Your task to perform on an android device: open a new tab in the chrome app Image 0: 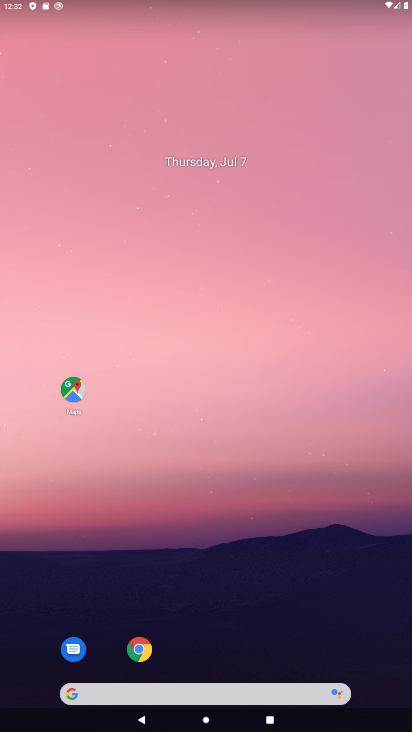
Step 0: drag from (207, 661) to (164, 82)
Your task to perform on an android device: open a new tab in the chrome app Image 1: 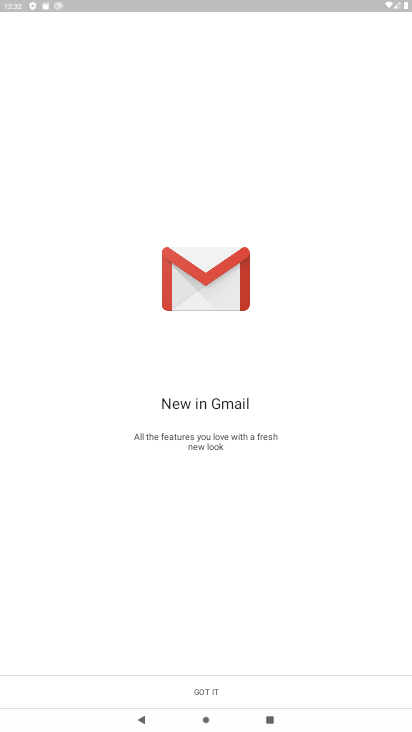
Step 1: press home button
Your task to perform on an android device: open a new tab in the chrome app Image 2: 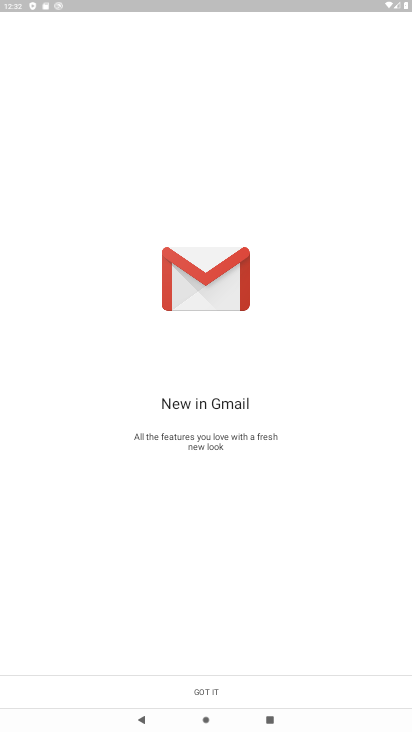
Step 2: drag from (164, 82) to (411, 399)
Your task to perform on an android device: open a new tab in the chrome app Image 3: 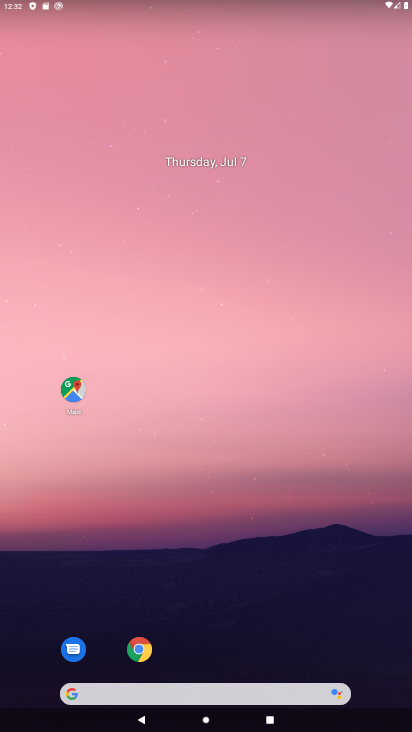
Step 3: drag from (198, 674) to (211, 159)
Your task to perform on an android device: open a new tab in the chrome app Image 4: 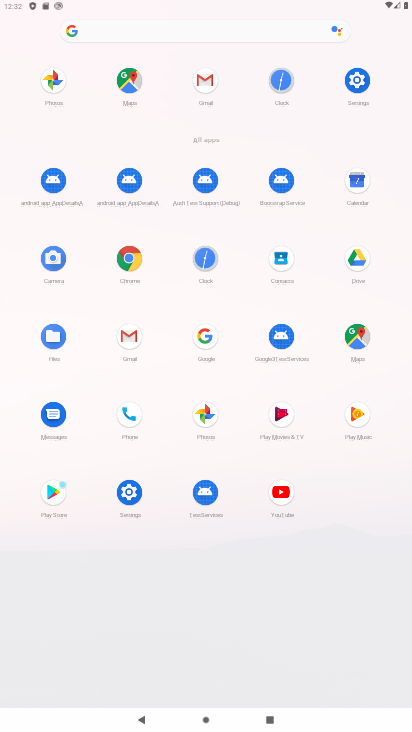
Step 4: click (122, 251)
Your task to perform on an android device: open a new tab in the chrome app Image 5: 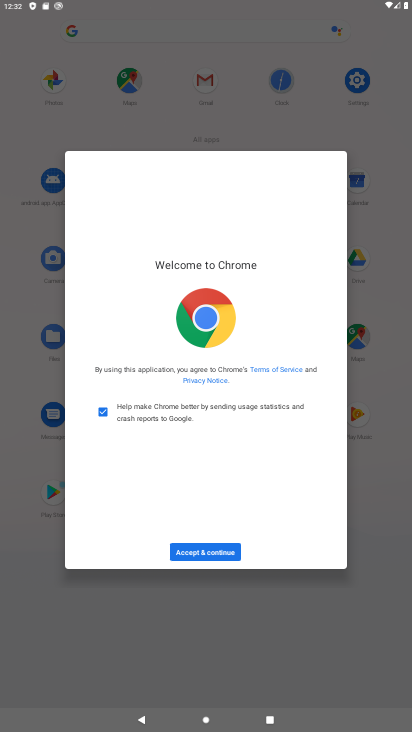
Step 5: click (230, 553)
Your task to perform on an android device: open a new tab in the chrome app Image 6: 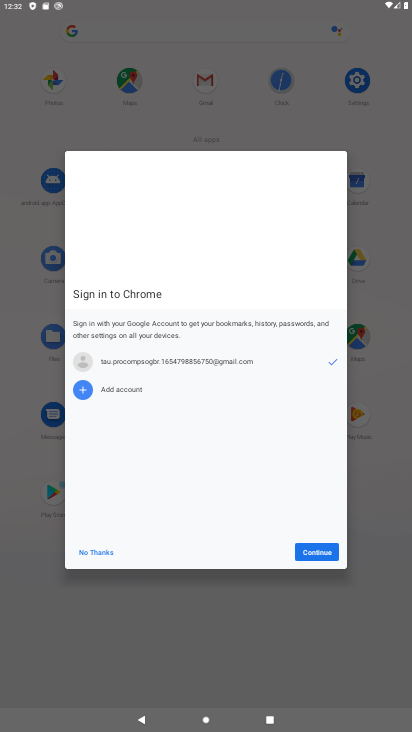
Step 6: click (302, 550)
Your task to perform on an android device: open a new tab in the chrome app Image 7: 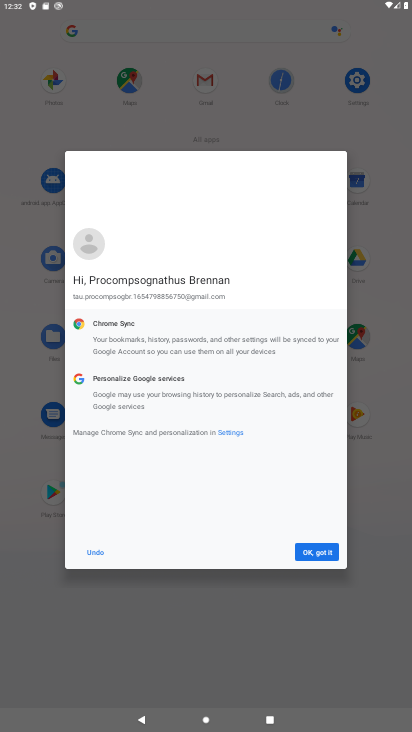
Step 7: click (302, 550)
Your task to perform on an android device: open a new tab in the chrome app Image 8: 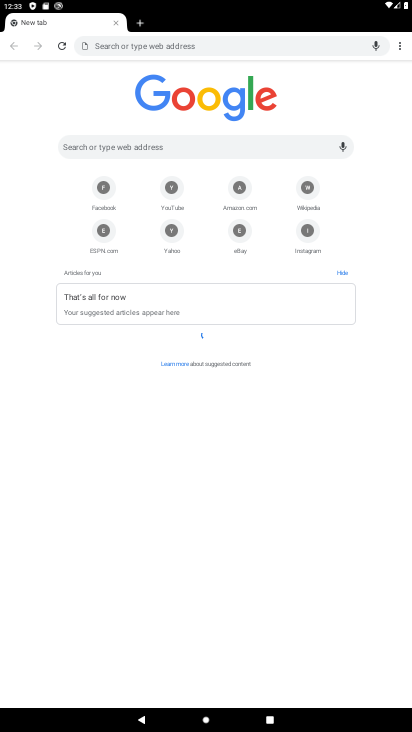
Step 8: task complete